Your task to perform on an android device: Go to Yahoo.com Image 0: 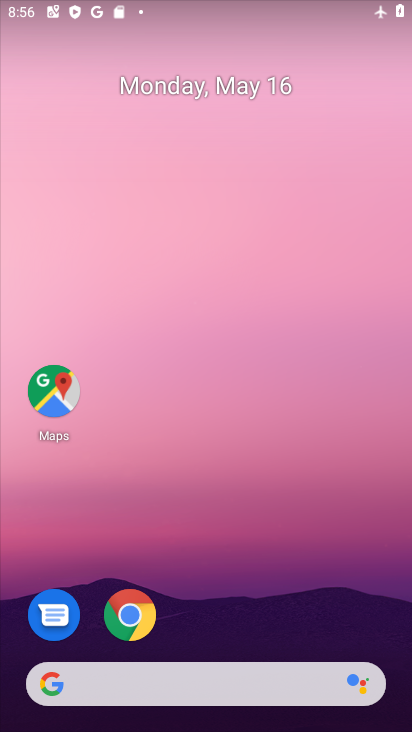
Step 0: click (139, 610)
Your task to perform on an android device: Go to Yahoo.com Image 1: 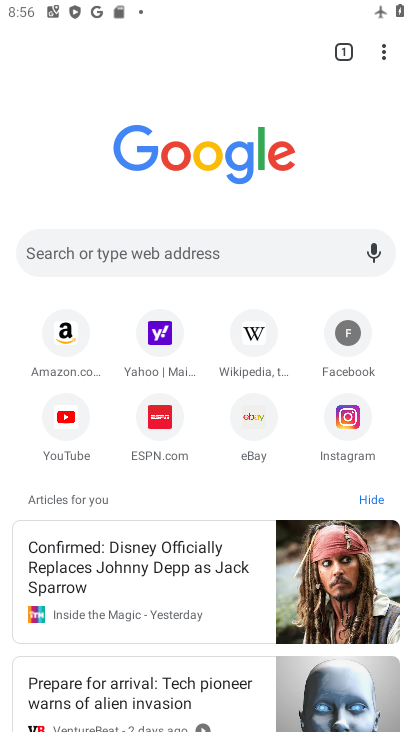
Step 1: click (144, 335)
Your task to perform on an android device: Go to Yahoo.com Image 2: 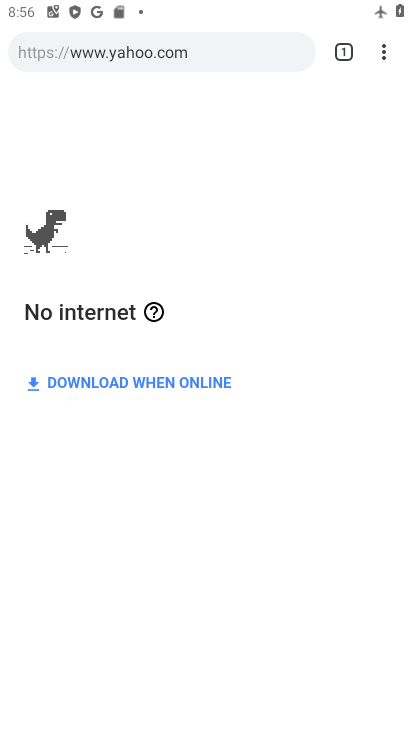
Step 2: task complete